Your task to perform on an android device: turn off notifications in google photos Image 0: 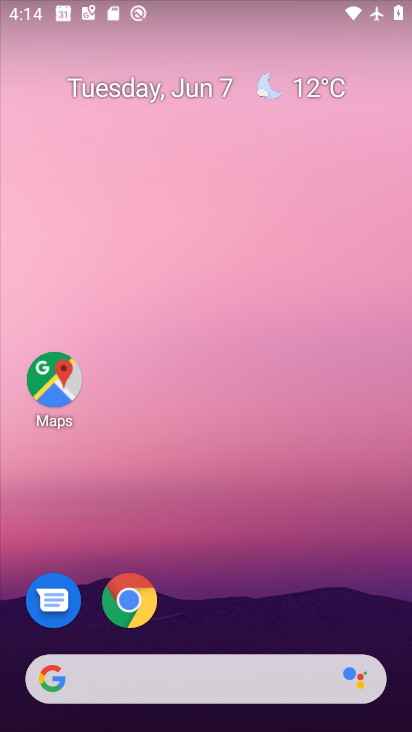
Step 0: drag from (258, 574) to (293, 92)
Your task to perform on an android device: turn off notifications in google photos Image 1: 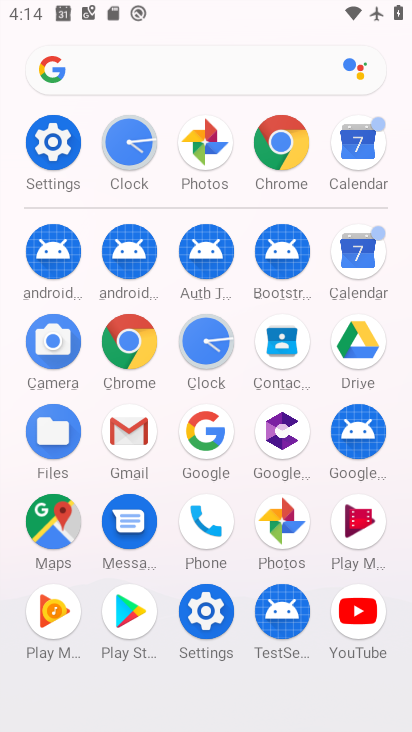
Step 1: click (210, 148)
Your task to perform on an android device: turn off notifications in google photos Image 2: 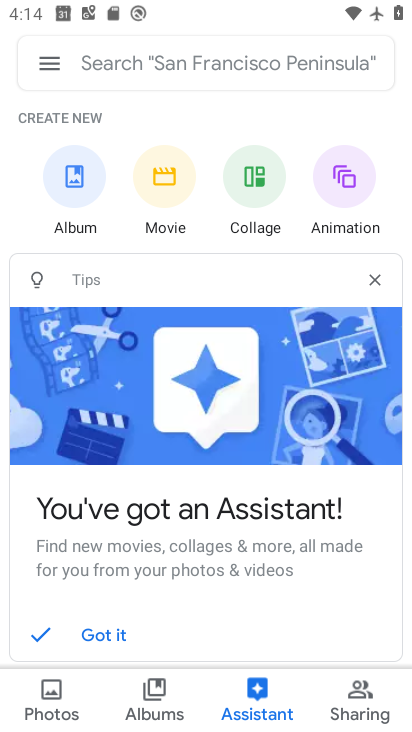
Step 2: click (60, 51)
Your task to perform on an android device: turn off notifications in google photos Image 3: 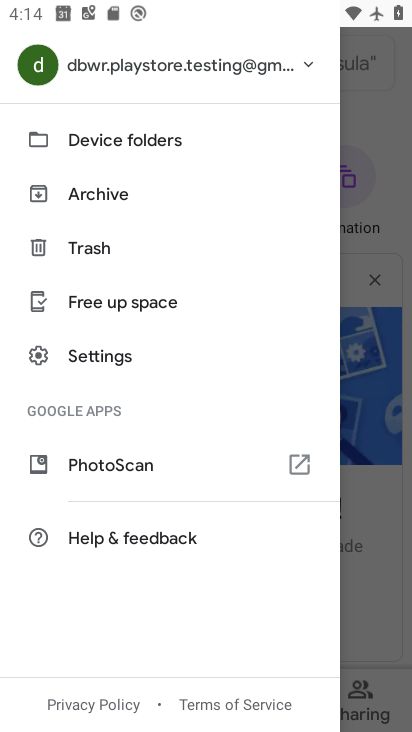
Step 3: drag from (170, 375) to (223, 143)
Your task to perform on an android device: turn off notifications in google photos Image 4: 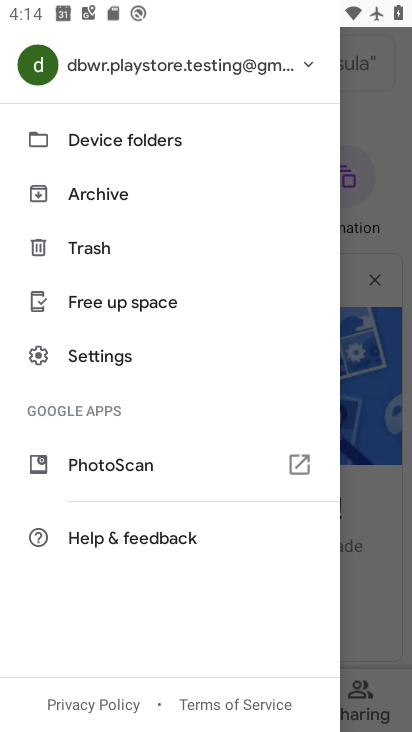
Step 4: click (117, 355)
Your task to perform on an android device: turn off notifications in google photos Image 5: 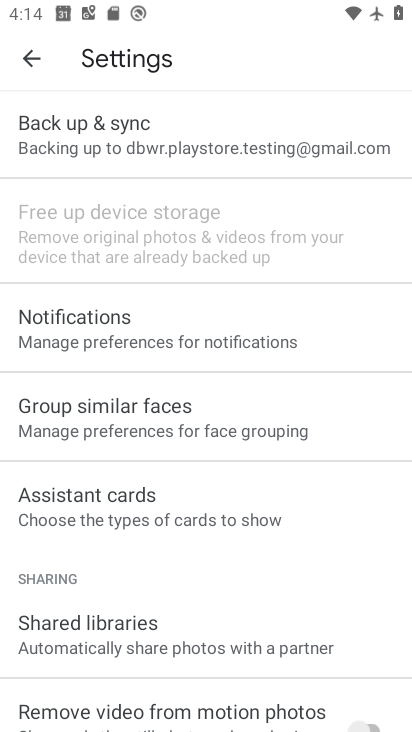
Step 5: drag from (218, 606) to (192, 701)
Your task to perform on an android device: turn off notifications in google photos Image 6: 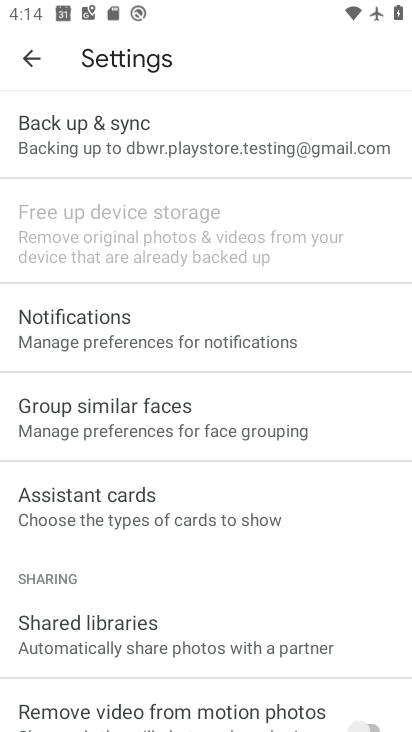
Step 6: click (171, 337)
Your task to perform on an android device: turn off notifications in google photos Image 7: 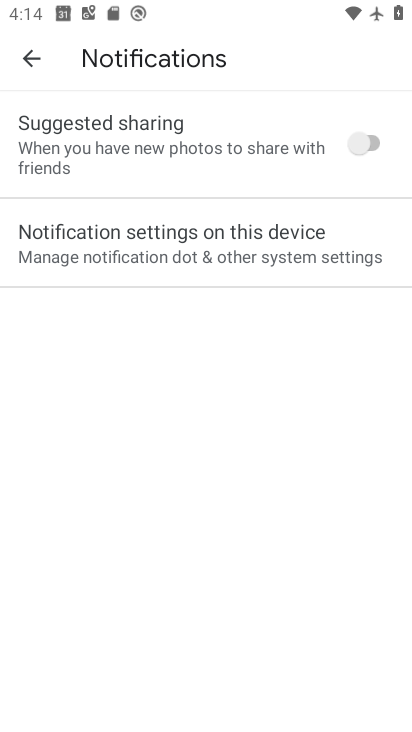
Step 7: click (243, 257)
Your task to perform on an android device: turn off notifications in google photos Image 8: 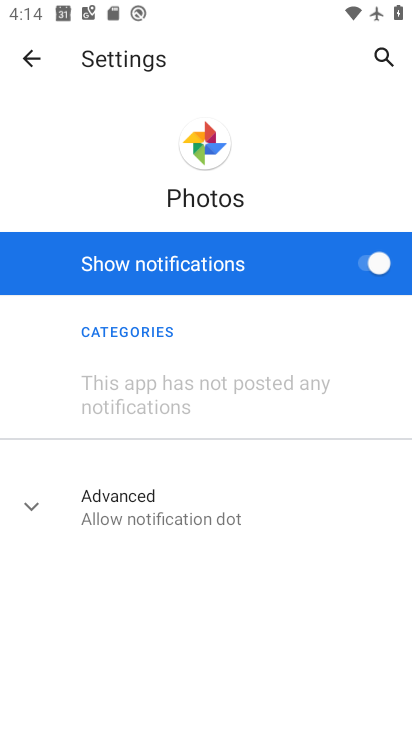
Step 8: click (366, 252)
Your task to perform on an android device: turn off notifications in google photos Image 9: 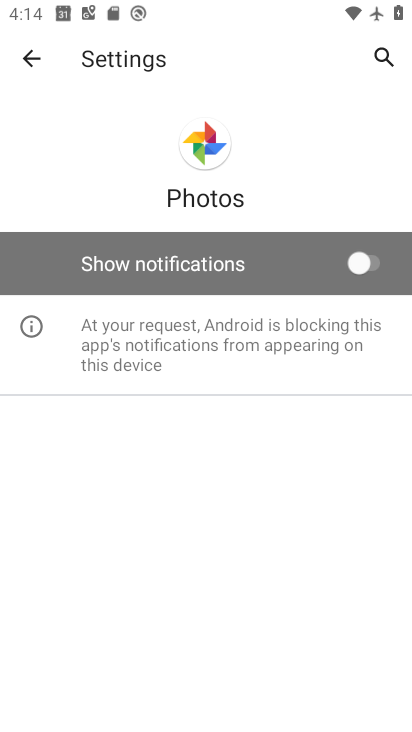
Step 9: task complete